Your task to perform on an android device: add a contact in the contacts app Image 0: 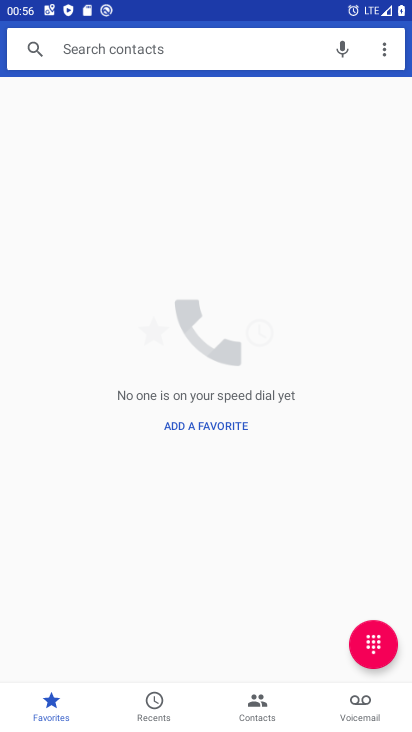
Step 0: click (264, 707)
Your task to perform on an android device: add a contact in the contacts app Image 1: 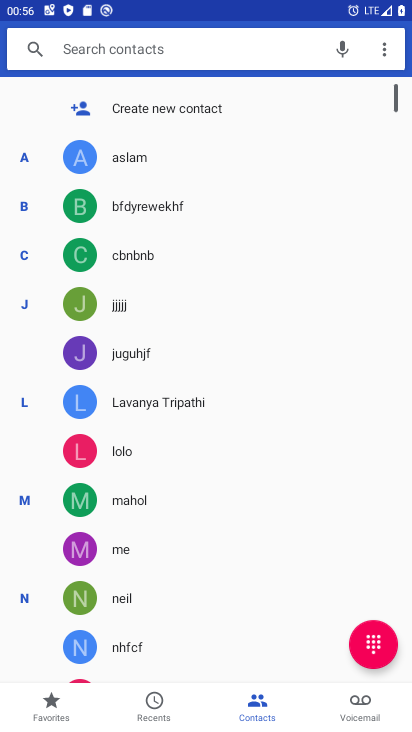
Step 1: click (198, 114)
Your task to perform on an android device: add a contact in the contacts app Image 2: 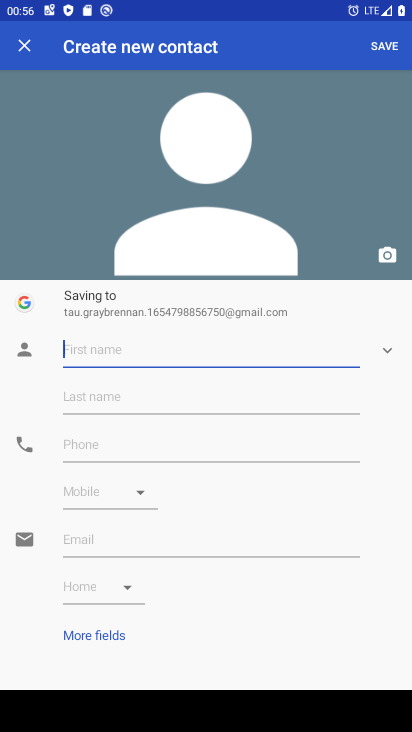
Step 2: click (118, 352)
Your task to perform on an android device: add a contact in the contacts app Image 3: 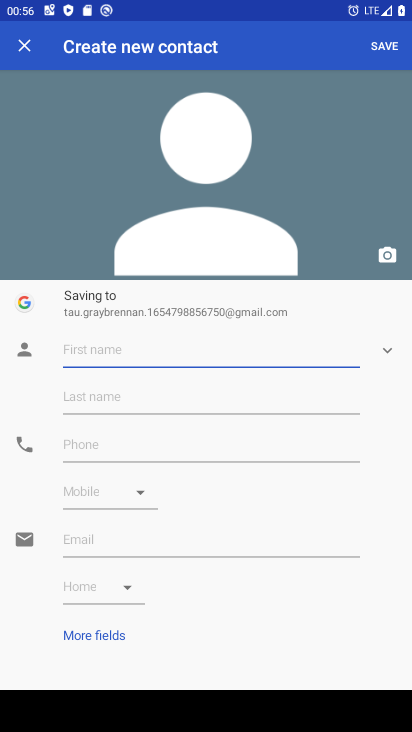
Step 3: type ",,,,,"
Your task to perform on an android device: add a contact in the contacts app Image 4: 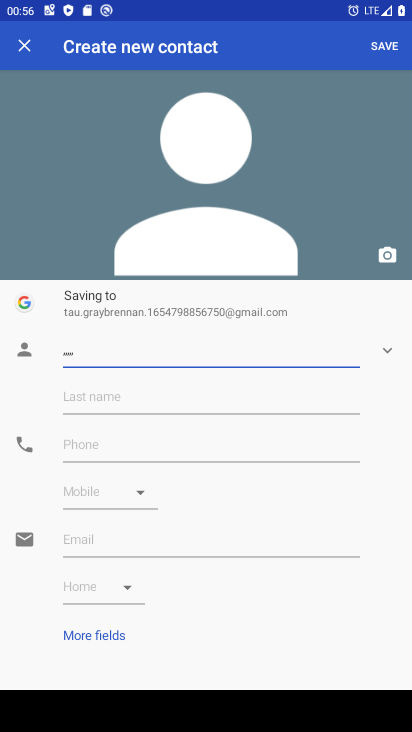
Step 4: click (116, 454)
Your task to perform on an android device: add a contact in the contacts app Image 5: 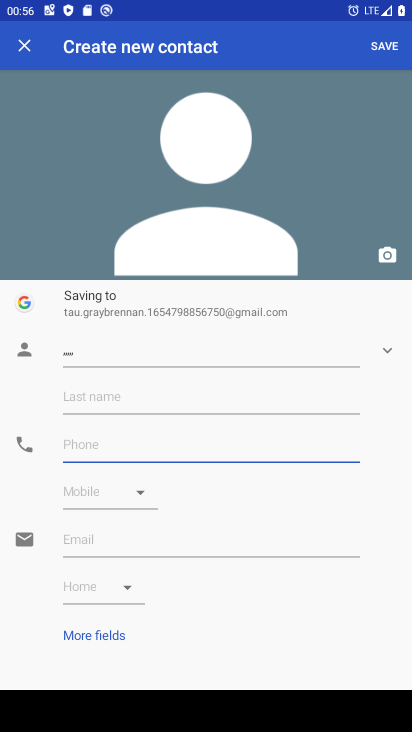
Step 5: type "76545678"
Your task to perform on an android device: add a contact in the contacts app Image 6: 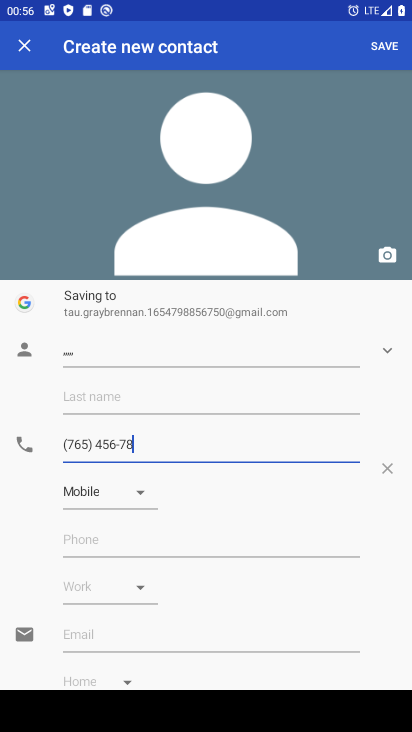
Step 6: click (387, 49)
Your task to perform on an android device: add a contact in the contacts app Image 7: 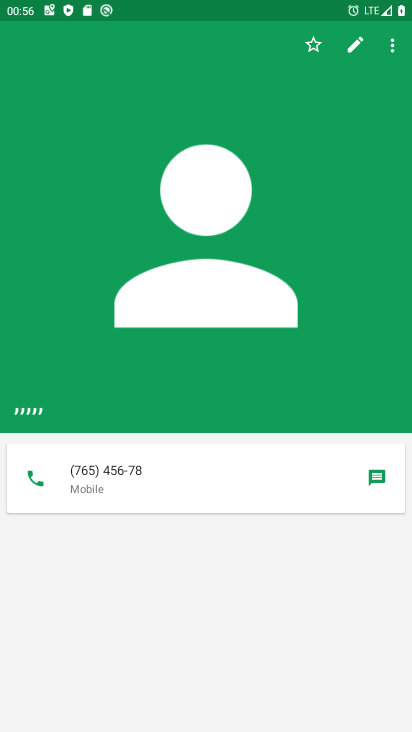
Step 7: task complete